Your task to perform on an android device: Go to Yahoo.com Image 0: 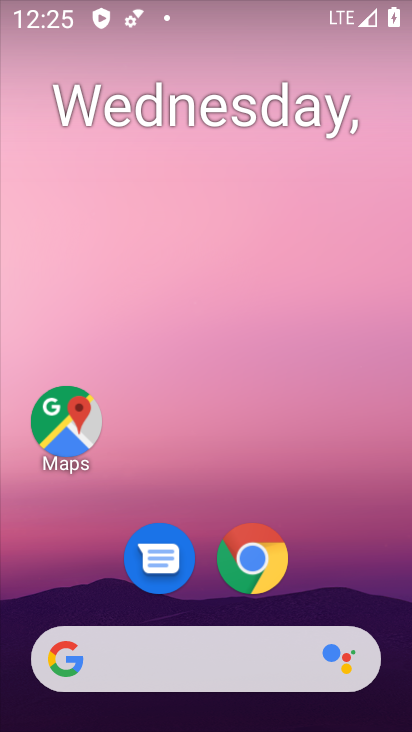
Step 0: drag from (288, 692) to (411, 96)
Your task to perform on an android device: Go to Yahoo.com Image 1: 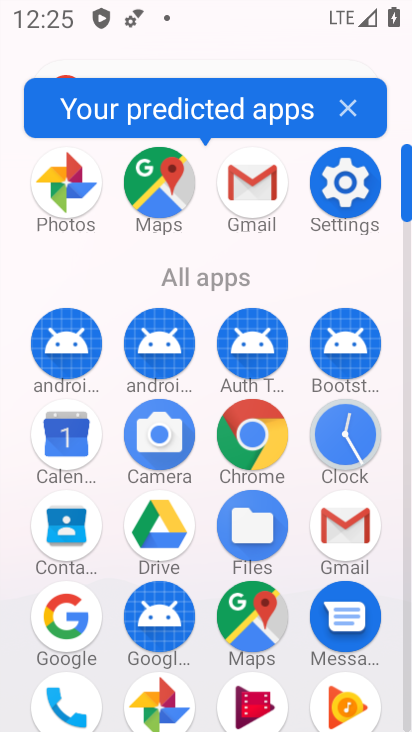
Step 1: click (254, 430)
Your task to perform on an android device: Go to Yahoo.com Image 2: 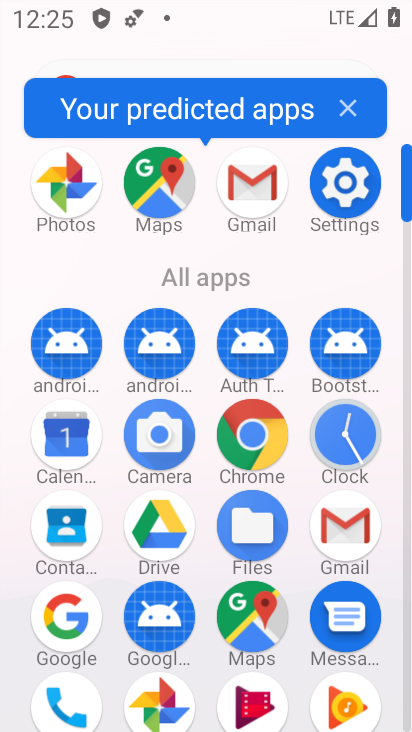
Step 2: click (255, 429)
Your task to perform on an android device: Go to Yahoo.com Image 3: 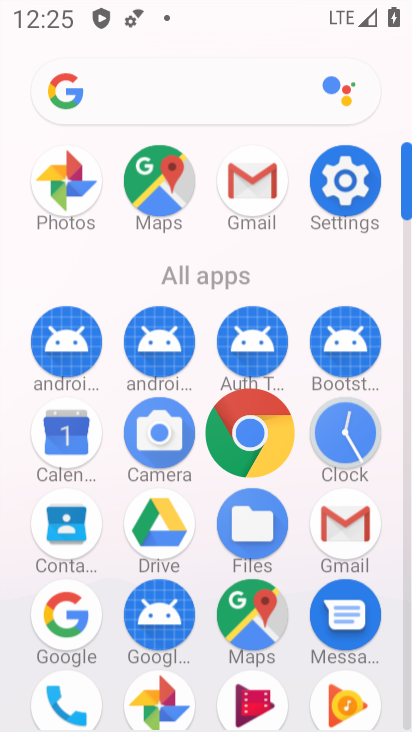
Step 3: click (261, 436)
Your task to perform on an android device: Go to Yahoo.com Image 4: 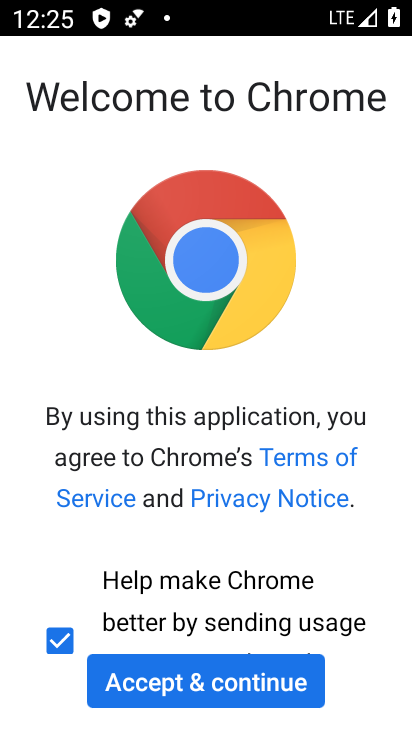
Step 4: click (235, 659)
Your task to perform on an android device: Go to Yahoo.com Image 5: 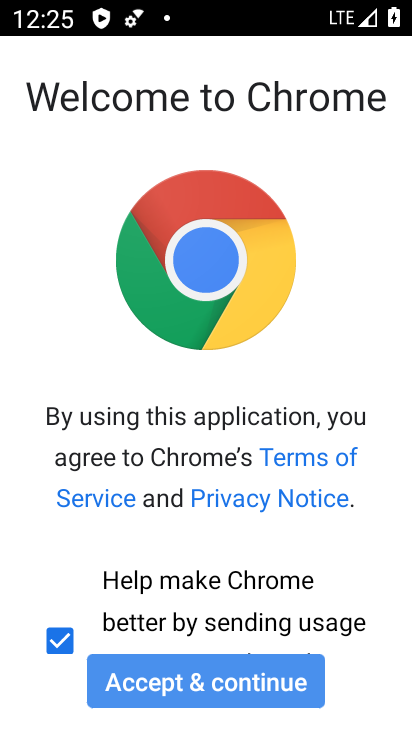
Step 5: click (234, 678)
Your task to perform on an android device: Go to Yahoo.com Image 6: 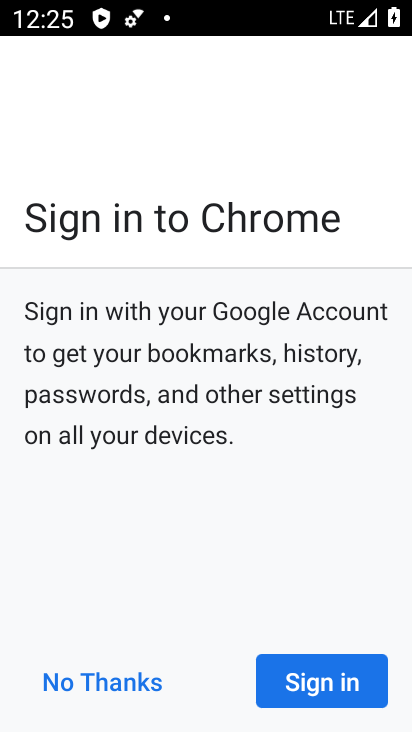
Step 6: click (236, 674)
Your task to perform on an android device: Go to Yahoo.com Image 7: 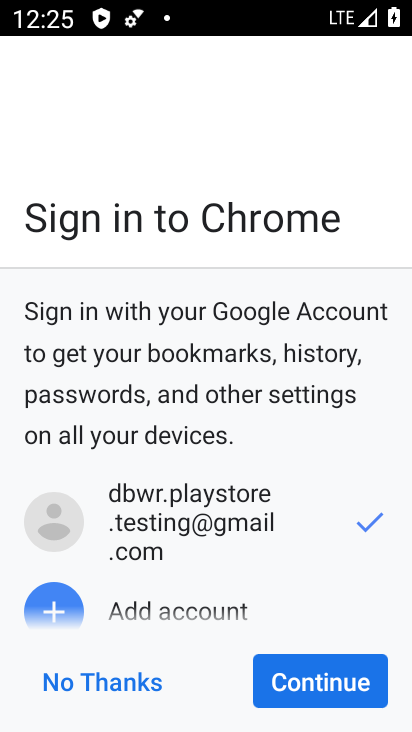
Step 7: click (242, 669)
Your task to perform on an android device: Go to Yahoo.com Image 8: 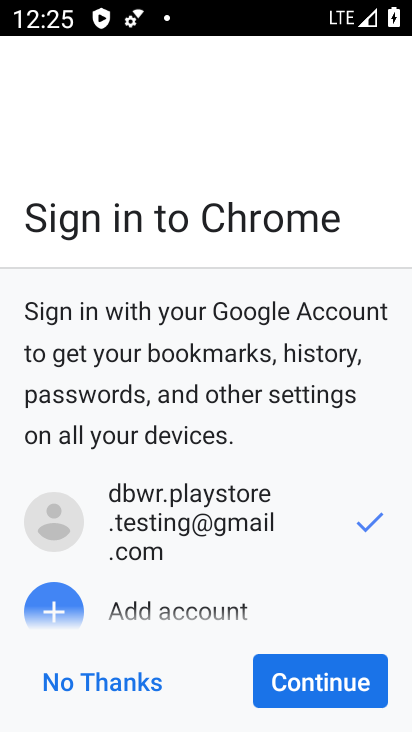
Step 8: click (242, 669)
Your task to perform on an android device: Go to Yahoo.com Image 9: 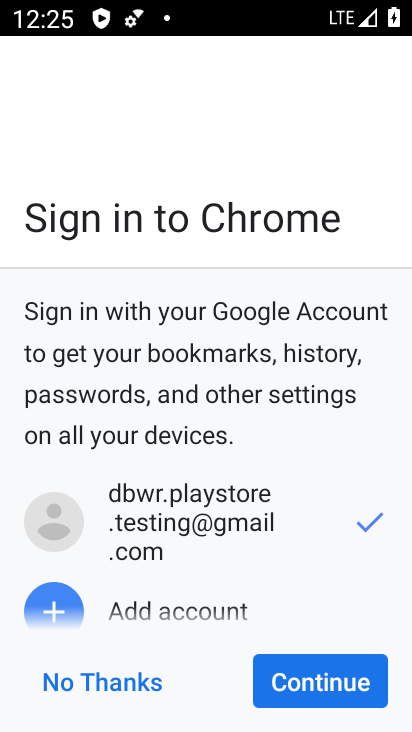
Step 9: click (324, 673)
Your task to perform on an android device: Go to Yahoo.com Image 10: 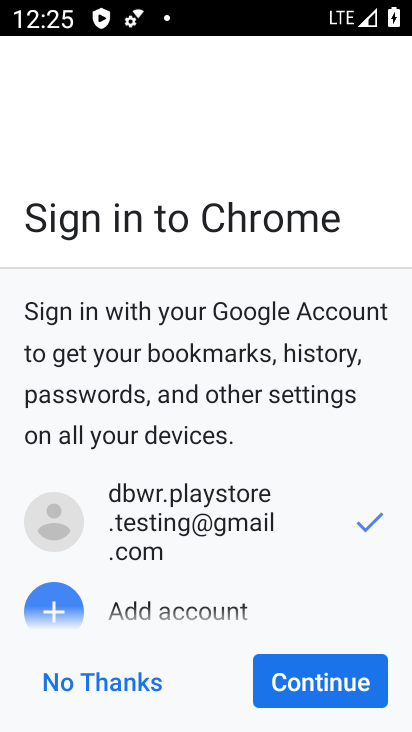
Step 10: click (324, 673)
Your task to perform on an android device: Go to Yahoo.com Image 11: 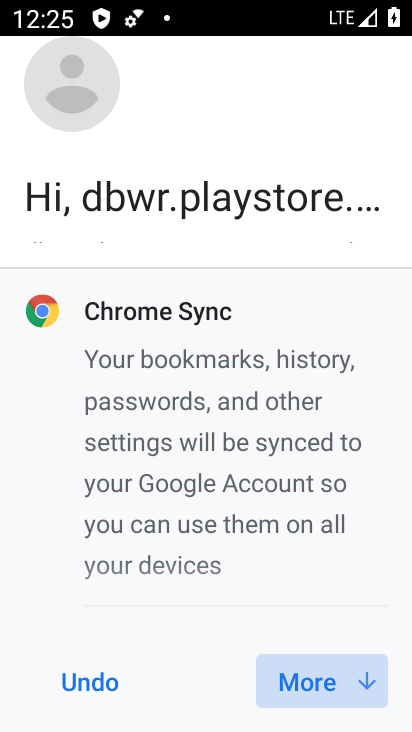
Step 11: click (364, 686)
Your task to perform on an android device: Go to Yahoo.com Image 12: 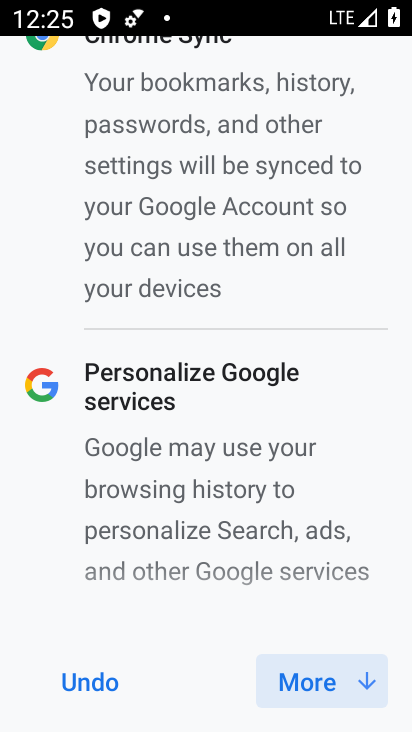
Step 12: click (364, 686)
Your task to perform on an android device: Go to Yahoo.com Image 13: 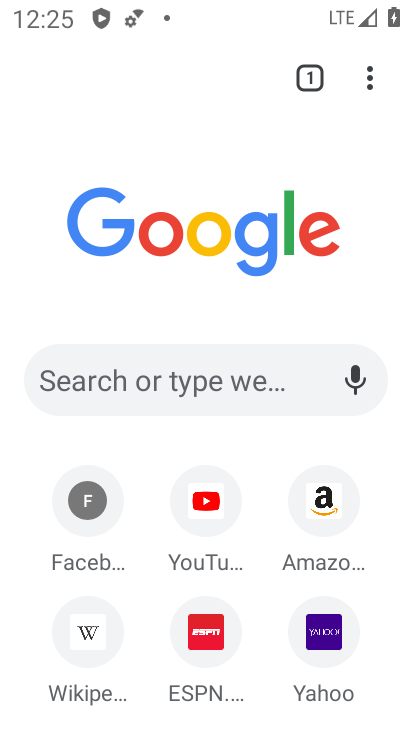
Step 13: click (333, 635)
Your task to perform on an android device: Go to Yahoo.com Image 14: 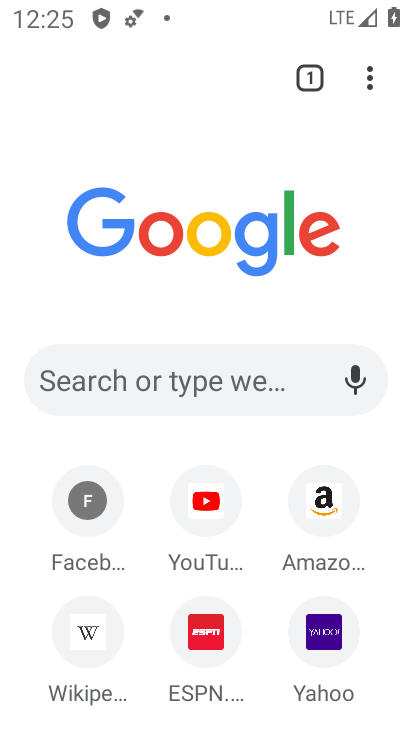
Step 14: click (331, 637)
Your task to perform on an android device: Go to Yahoo.com Image 15: 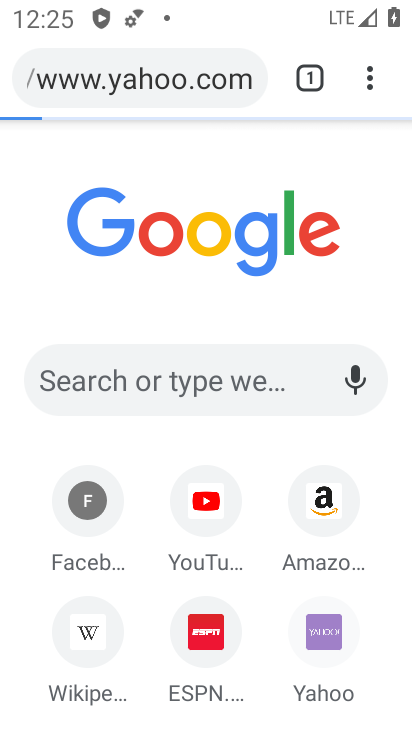
Step 15: click (330, 638)
Your task to perform on an android device: Go to Yahoo.com Image 16: 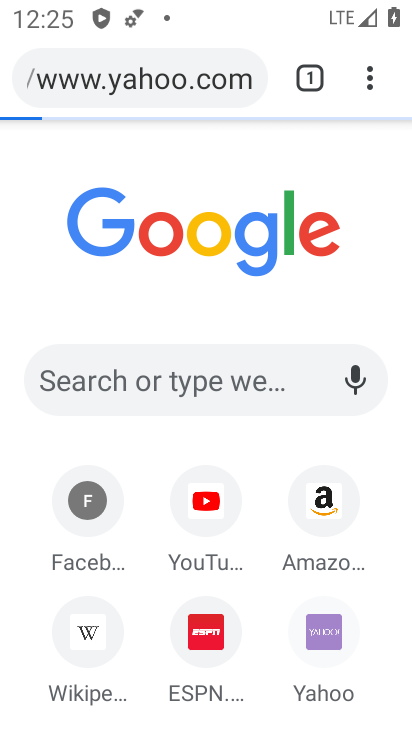
Step 16: click (333, 639)
Your task to perform on an android device: Go to Yahoo.com Image 17: 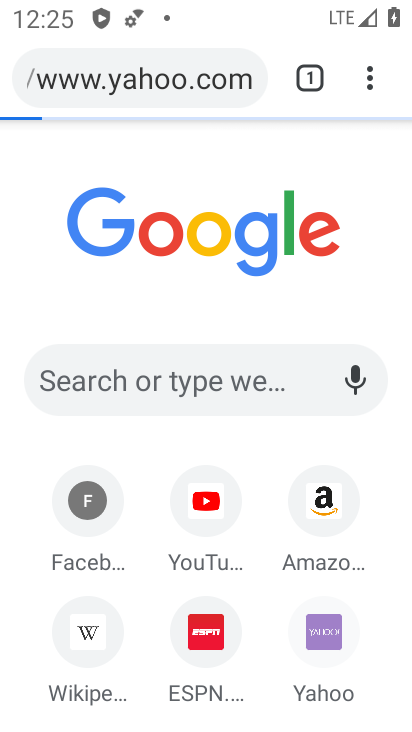
Step 17: click (333, 639)
Your task to perform on an android device: Go to Yahoo.com Image 18: 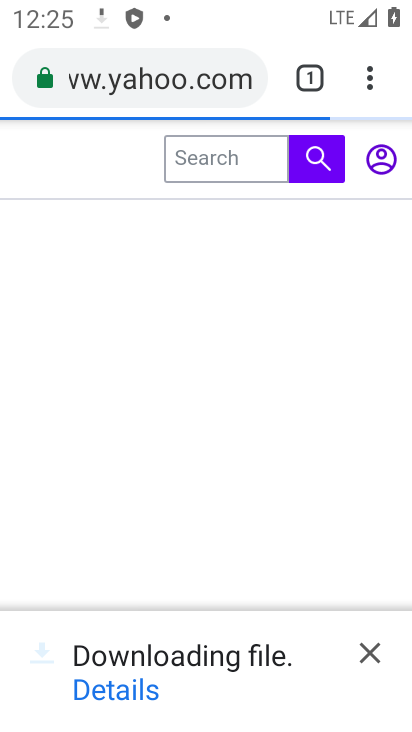
Step 18: task complete